Your task to perform on an android device: Open Youtube and go to the subscriptions tab Image 0: 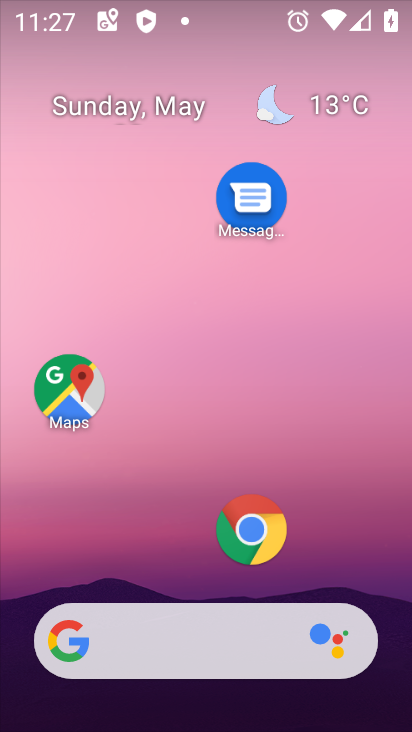
Step 0: drag from (178, 526) to (210, 321)
Your task to perform on an android device: Open Youtube and go to the subscriptions tab Image 1: 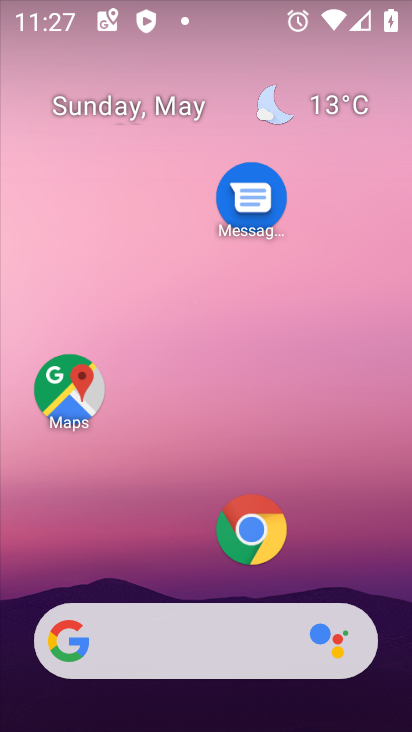
Step 1: drag from (161, 570) to (156, 408)
Your task to perform on an android device: Open Youtube and go to the subscriptions tab Image 2: 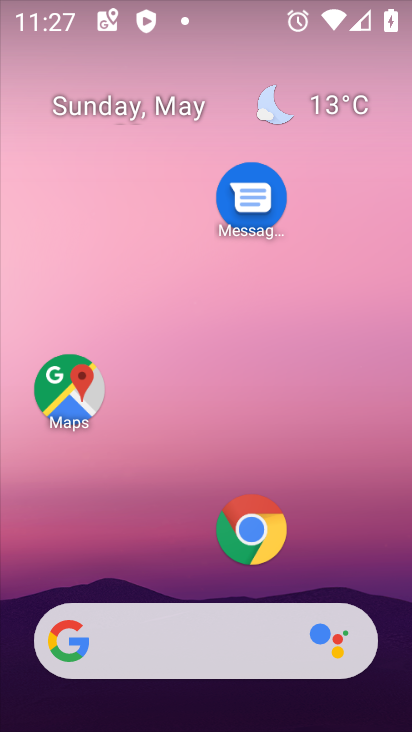
Step 2: drag from (144, 578) to (179, 72)
Your task to perform on an android device: Open Youtube and go to the subscriptions tab Image 3: 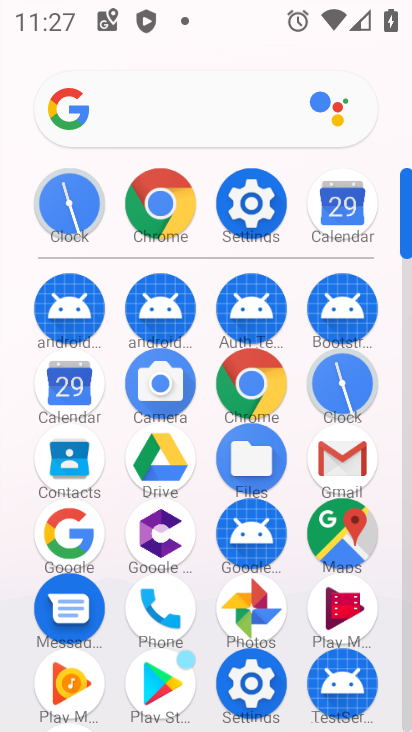
Step 3: drag from (216, 619) to (219, 13)
Your task to perform on an android device: Open Youtube and go to the subscriptions tab Image 4: 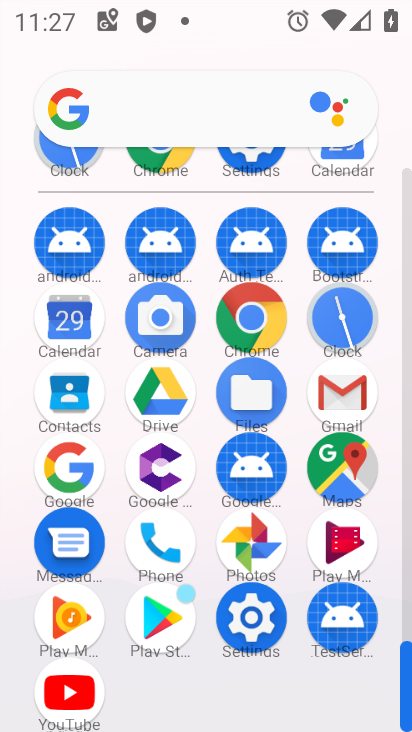
Step 4: click (63, 716)
Your task to perform on an android device: Open Youtube and go to the subscriptions tab Image 5: 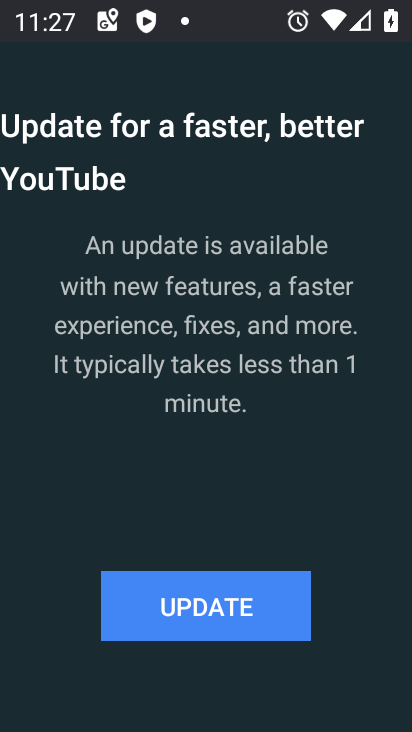
Step 5: click (186, 617)
Your task to perform on an android device: Open Youtube and go to the subscriptions tab Image 6: 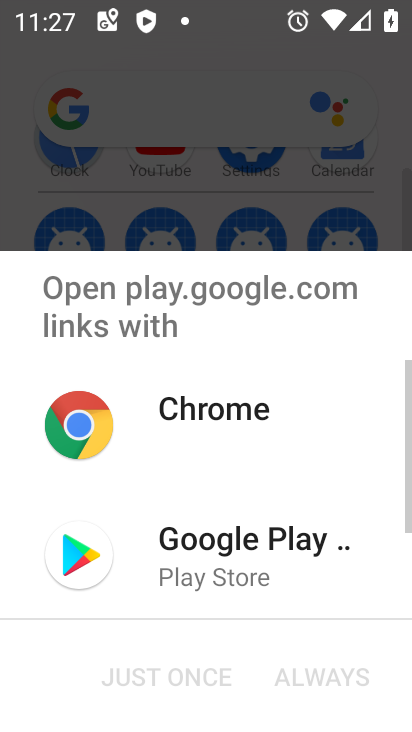
Step 6: drag from (175, 575) to (272, 575)
Your task to perform on an android device: Open Youtube and go to the subscriptions tab Image 7: 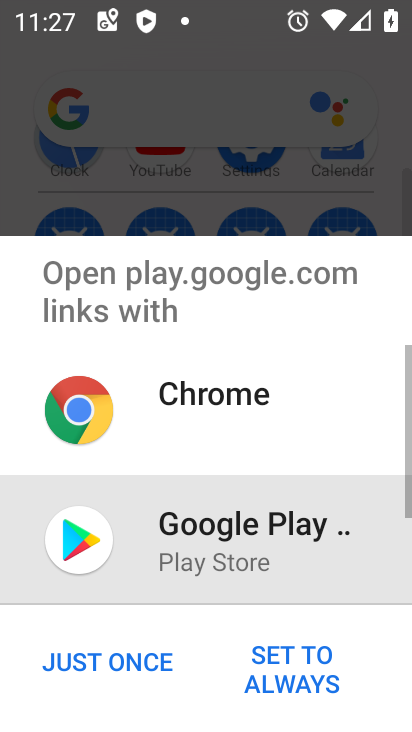
Step 7: click (117, 659)
Your task to perform on an android device: Open Youtube and go to the subscriptions tab Image 8: 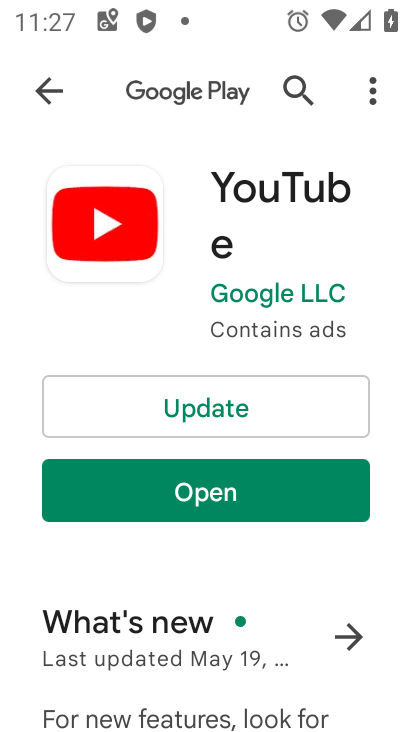
Step 8: click (226, 410)
Your task to perform on an android device: Open Youtube and go to the subscriptions tab Image 9: 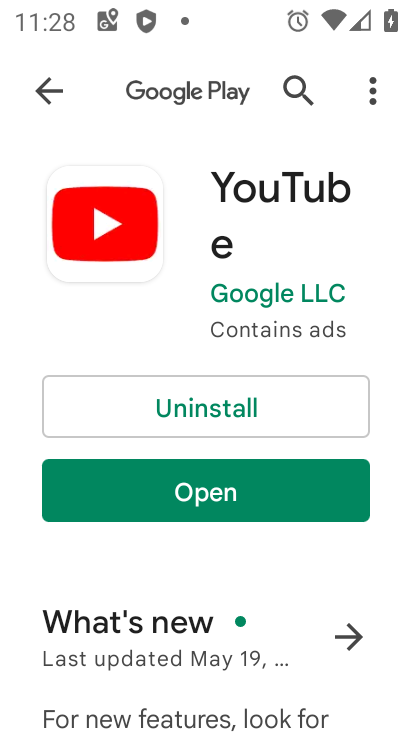
Step 9: click (264, 490)
Your task to perform on an android device: Open Youtube and go to the subscriptions tab Image 10: 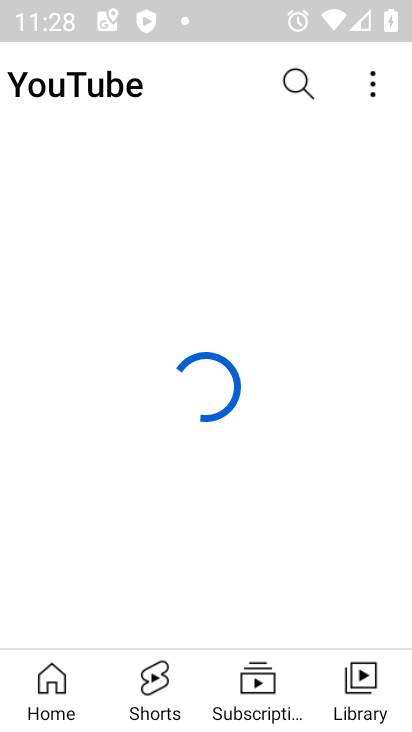
Step 10: click (247, 692)
Your task to perform on an android device: Open Youtube and go to the subscriptions tab Image 11: 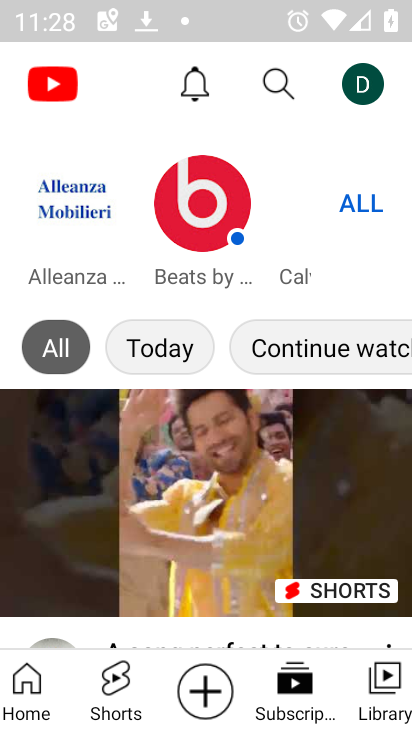
Step 11: task complete